Your task to perform on an android device: turn on priority inbox in the gmail app Image 0: 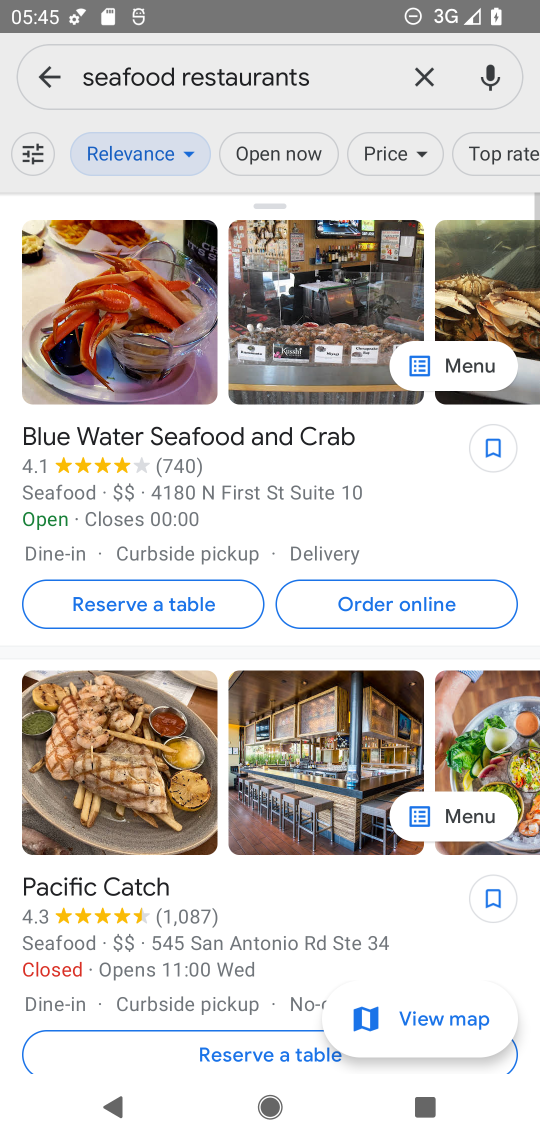
Step 0: press home button
Your task to perform on an android device: turn on priority inbox in the gmail app Image 1: 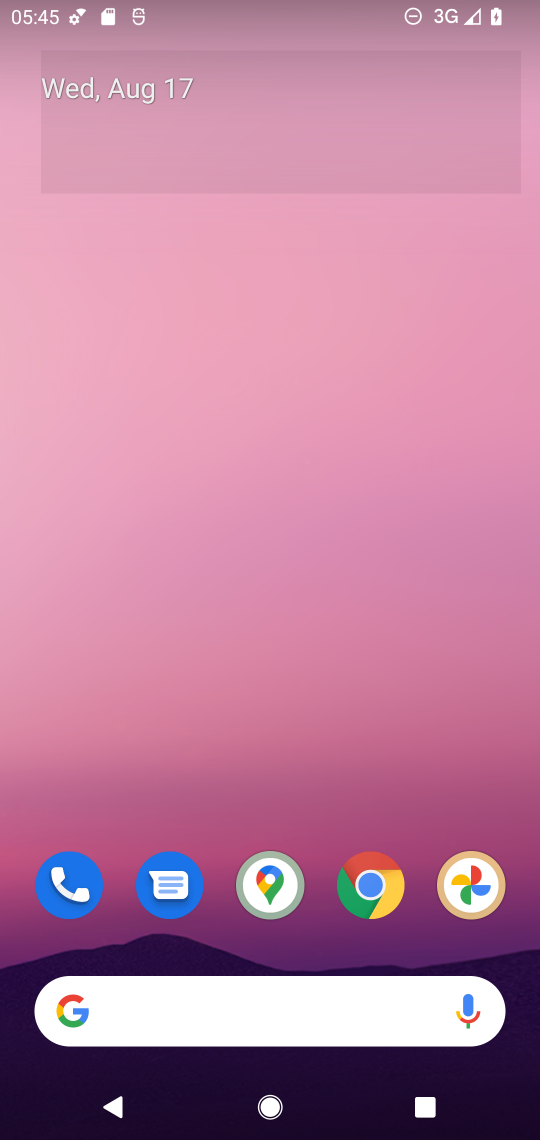
Step 1: drag from (272, 531) to (227, 48)
Your task to perform on an android device: turn on priority inbox in the gmail app Image 2: 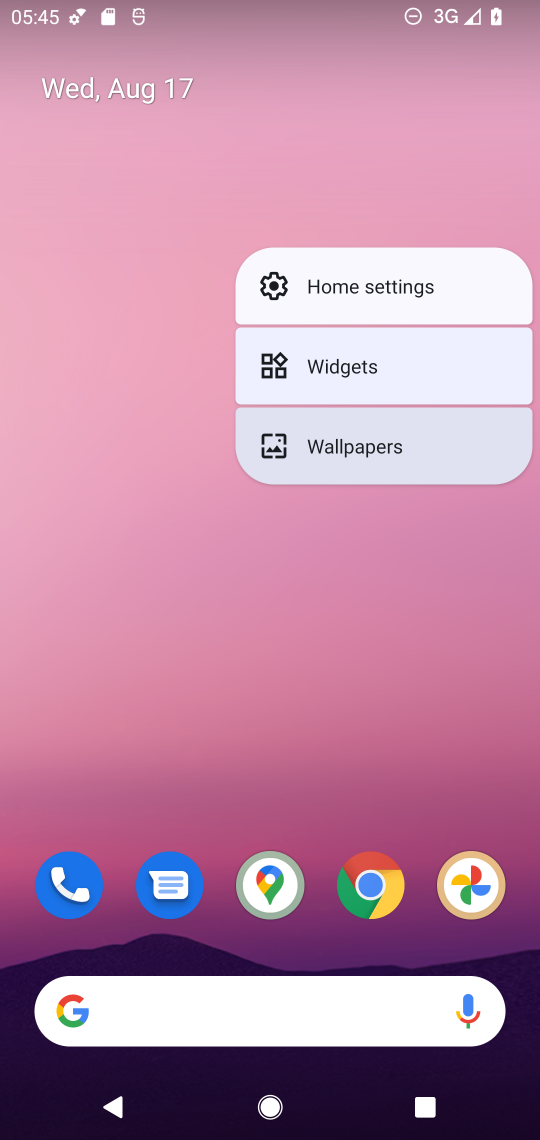
Step 2: click (23, 557)
Your task to perform on an android device: turn on priority inbox in the gmail app Image 3: 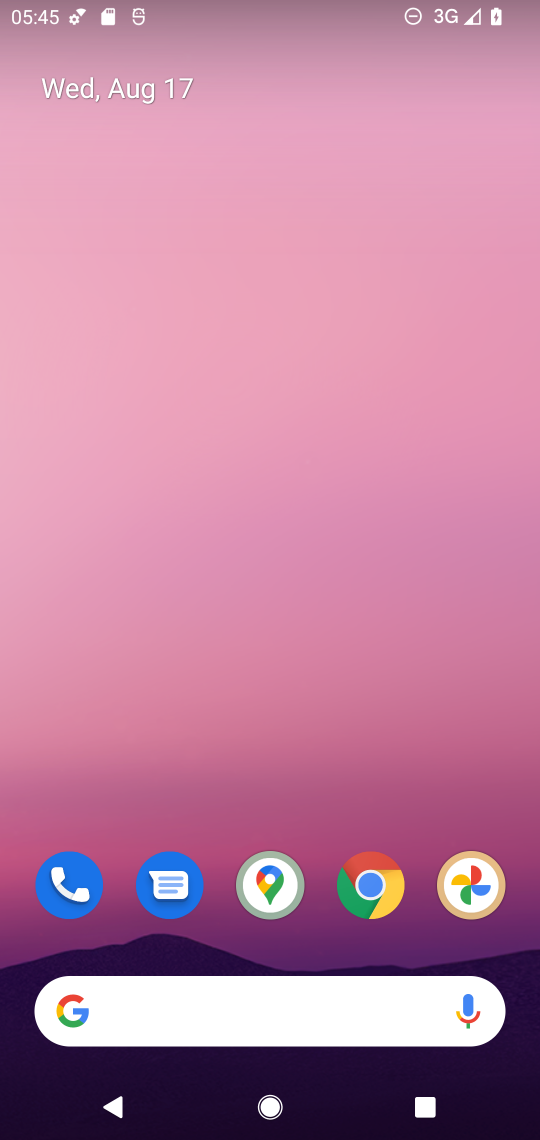
Step 3: drag from (332, 840) to (314, 167)
Your task to perform on an android device: turn on priority inbox in the gmail app Image 4: 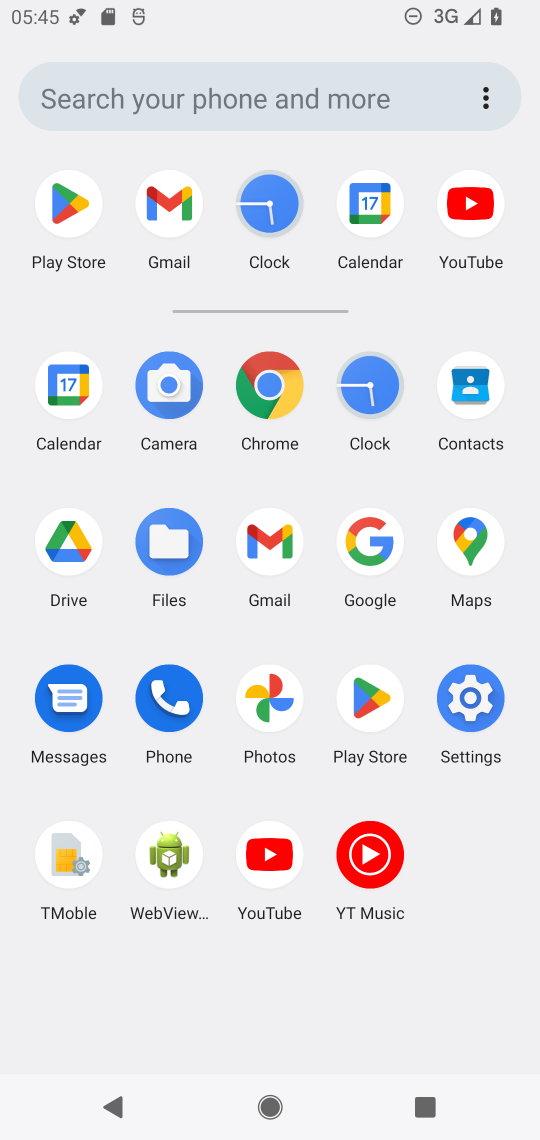
Step 4: click (259, 553)
Your task to perform on an android device: turn on priority inbox in the gmail app Image 5: 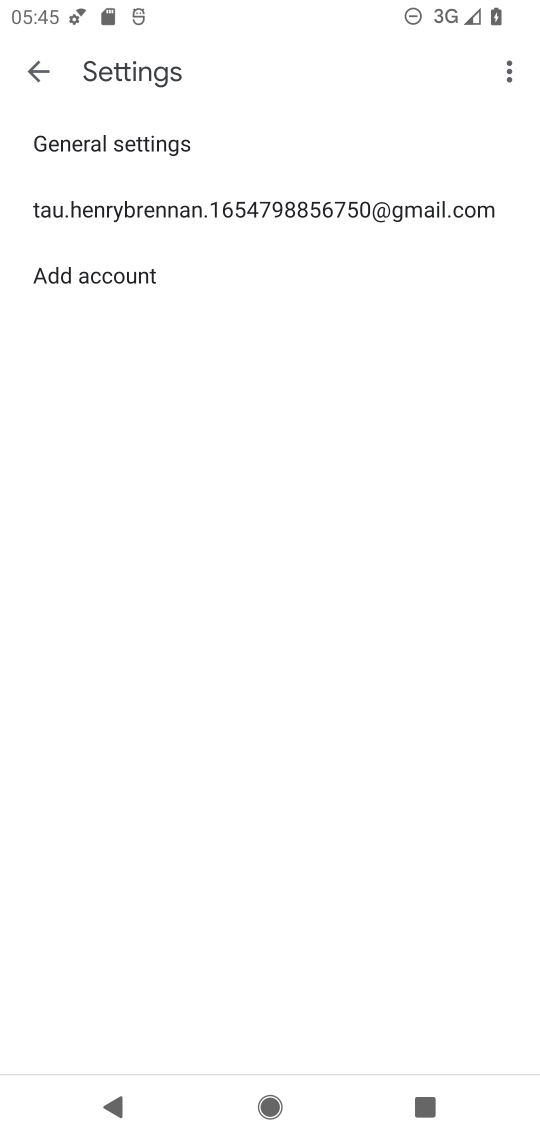
Step 5: click (68, 198)
Your task to perform on an android device: turn on priority inbox in the gmail app Image 6: 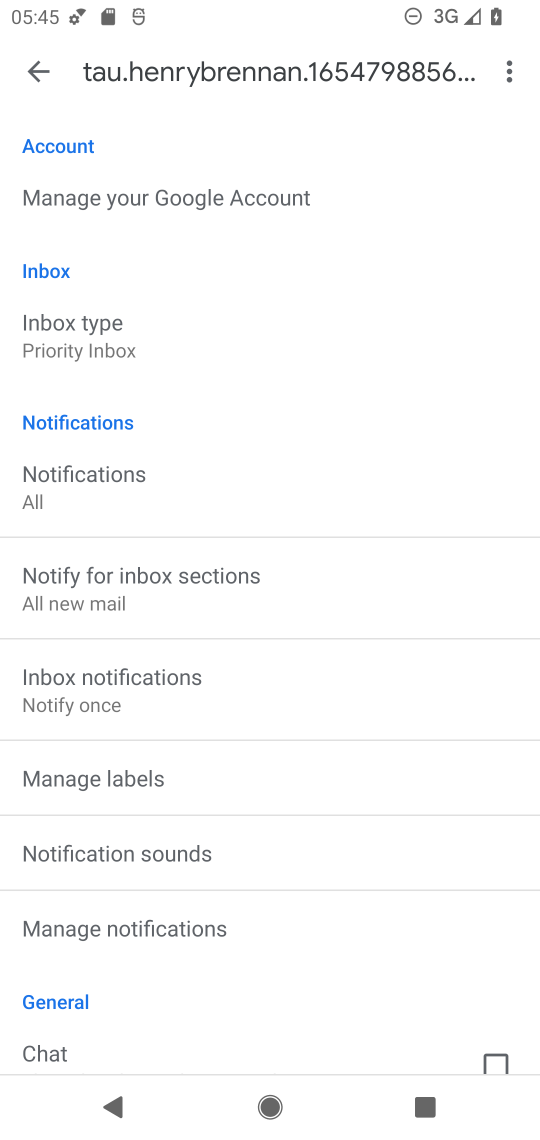
Step 6: click (59, 343)
Your task to perform on an android device: turn on priority inbox in the gmail app Image 7: 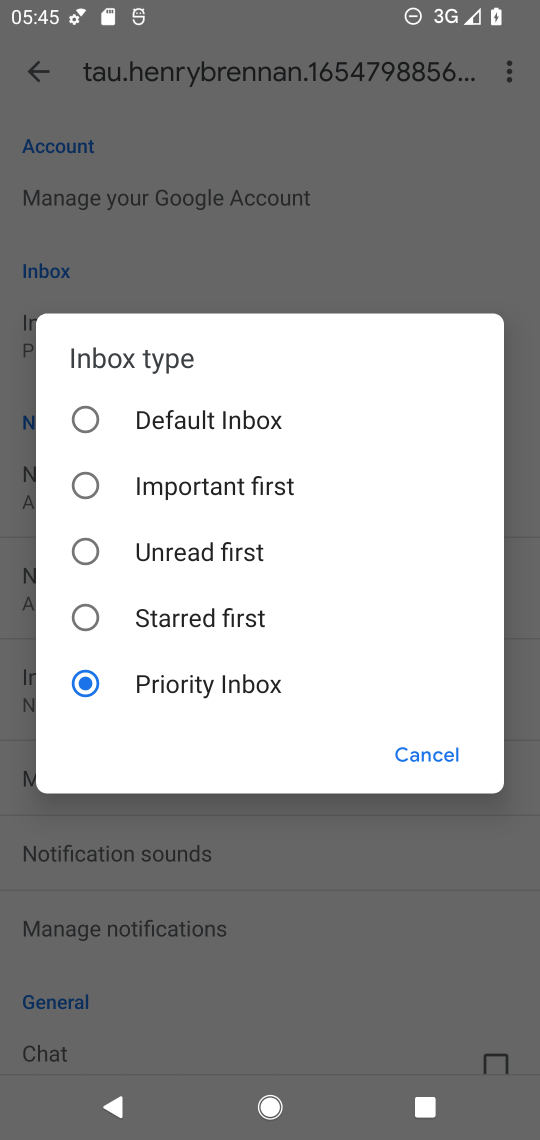
Step 7: task complete